Your task to perform on an android device: toggle show notifications on the lock screen Image 0: 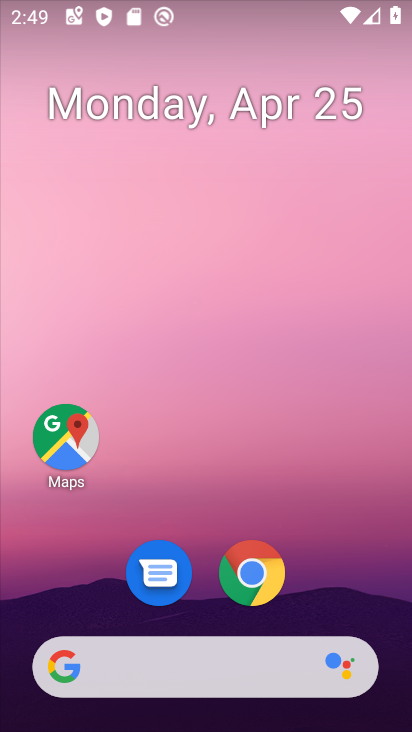
Step 0: drag from (336, 529) to (241, 98)
Your task to perform on an android device: toggle show notifications on the lock screen Image 1: 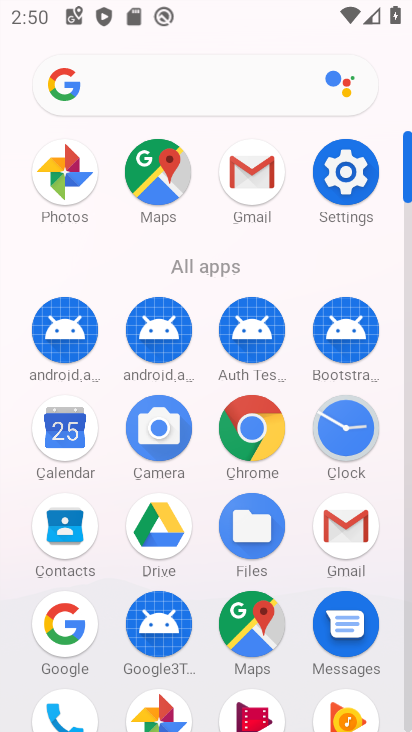
Step 1: click (335, 193)
Your task to perform on an android device: toggle show notifications on the lock screen Image 2: 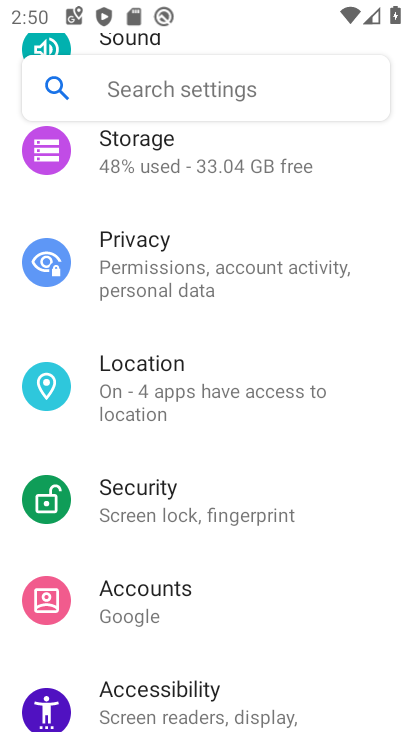
Step 2: drag from (167, 216) to (150, 449)
Your task to perform on an android device: toggle show notifications on the lock screen Image 3: 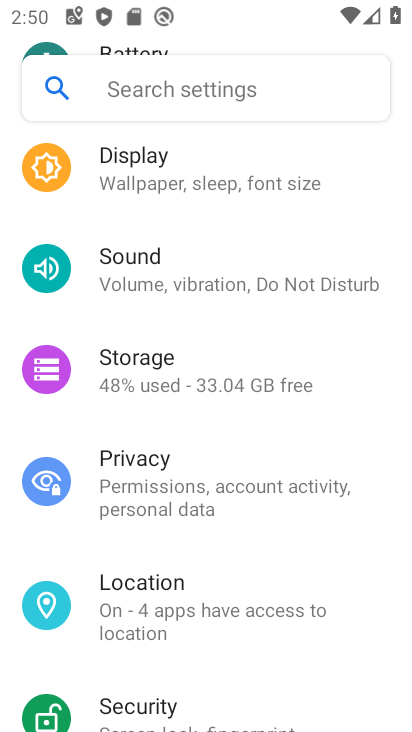
Step 3: drag from (181, 263) to (180, 517)
Your task to perform on an android device: toggle show notifications on the lock screen Image 4: 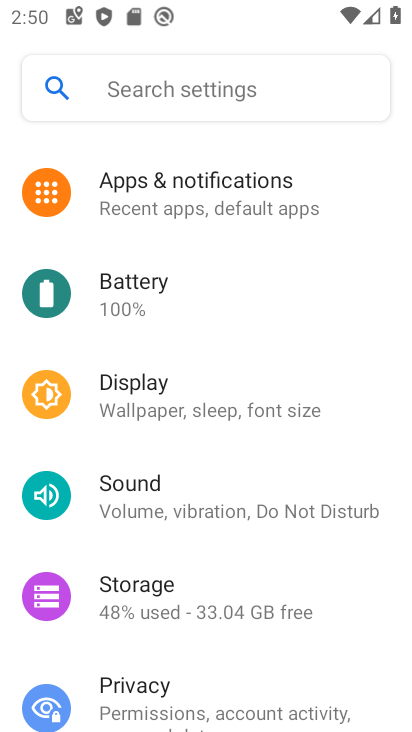
Step 4: click (167, 208)
Your task to perform on an android device: toggle show notifications on the lock screen Image 5: 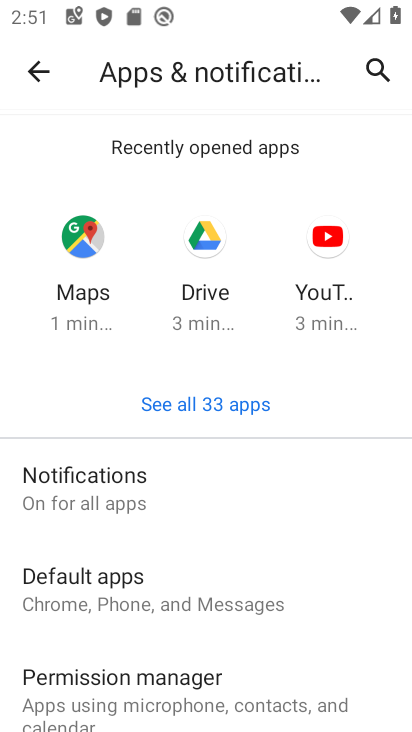
Step 5: drag from (168, 467) to (150, 401)
Your task to perform on an android device: toggle show notifications on the lock screen Image 6: 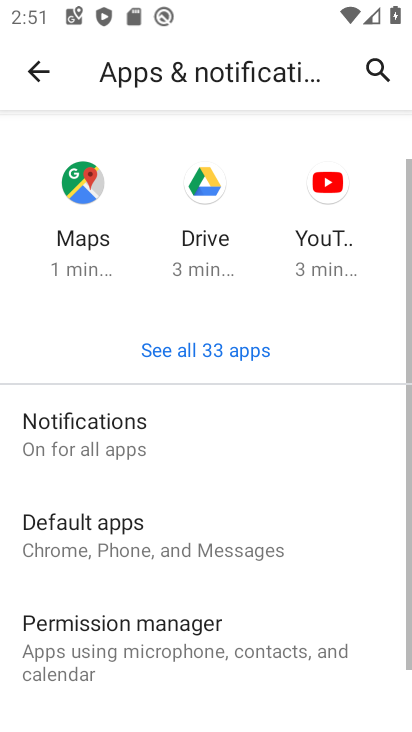
Step 6: click (148, 424)
Your task to perform on an android device: toggle show notifications on the lock screen Image 7: 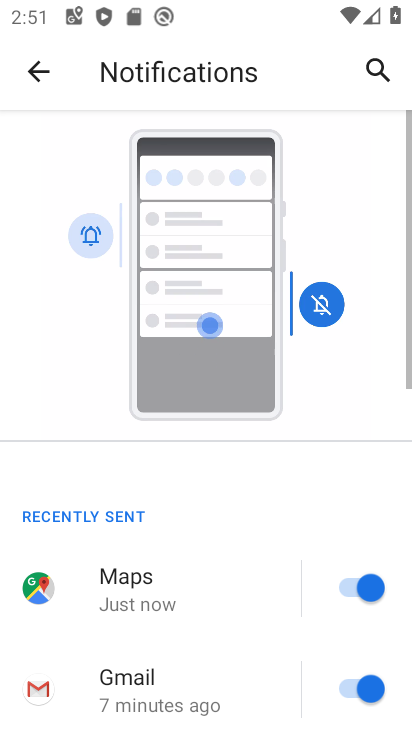
Step 7: drag from (205, 624) to (214, 147)
Your task to perform on an android device: toggle show notifications on the lock screen Image 8: 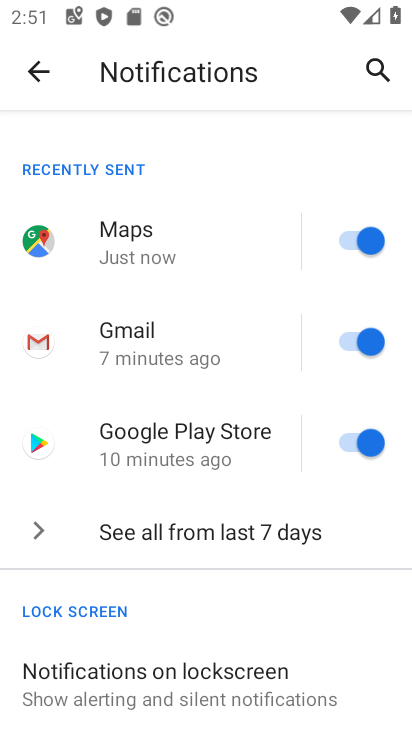
Step 8: click (180, 676)
Your task to perform on an android device: toggle show notifications on the lock screen Image 9: 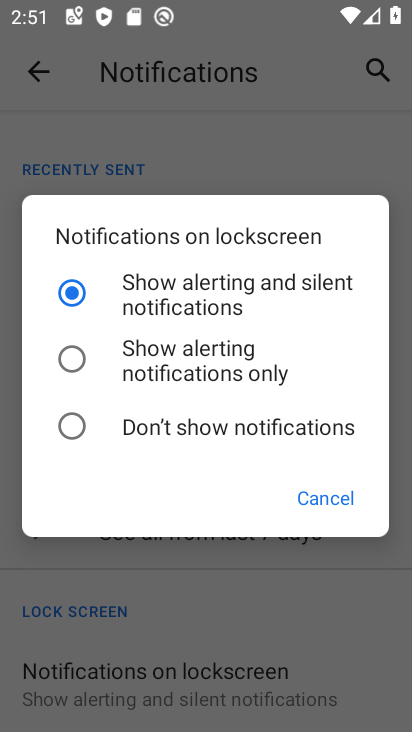
Step 9: click (159, 422)
Your task to perform on an android device: toggle show notifications on the lock screen Image 10: 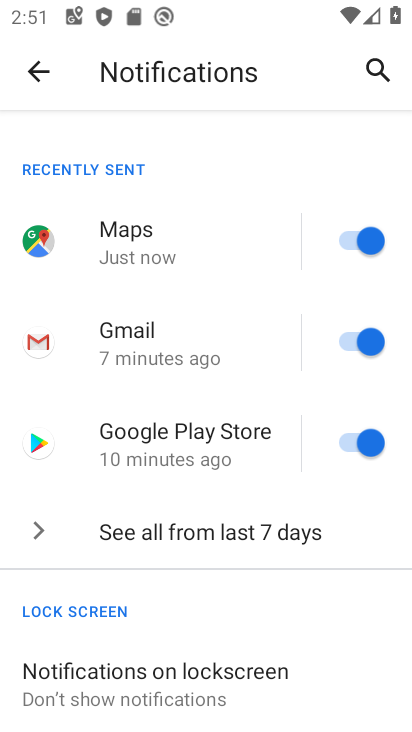
Step 10: task complete